Your task to perform on an android device: check out phone information Image 0: 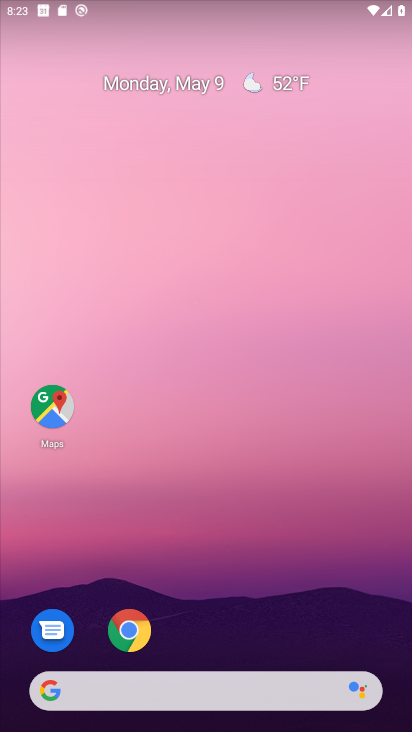
Step 0: drag from (228, 659) to (277, 110)
Your task to perform on an android device: check out phone information Image 1: 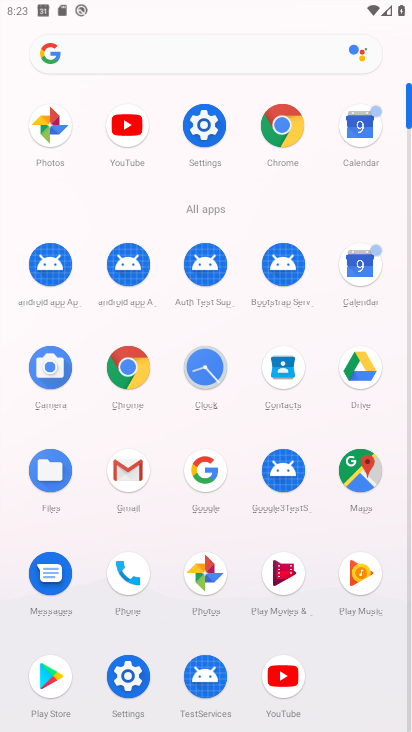
Step 1: click (199, 141)
Your task to perform on an android device: check out phone information Image 2: 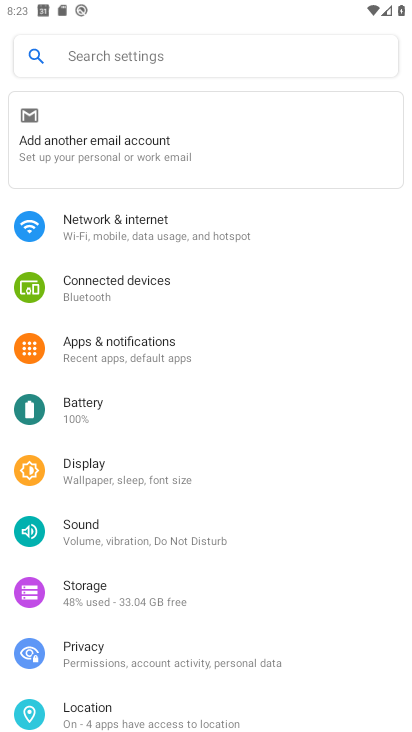
Step 2: drag from (116, 631) to (186, 227)
Your task to perform on an android device: check out phone information Image 3: 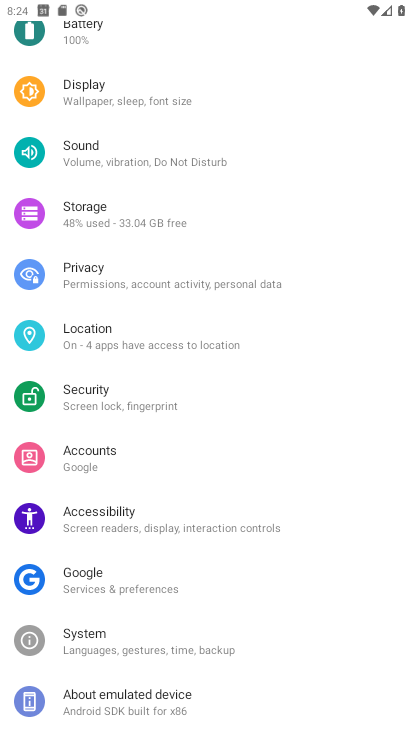
Step 3: click (105, 706)
Your task to perform on an android device: check out phone information Image 4: 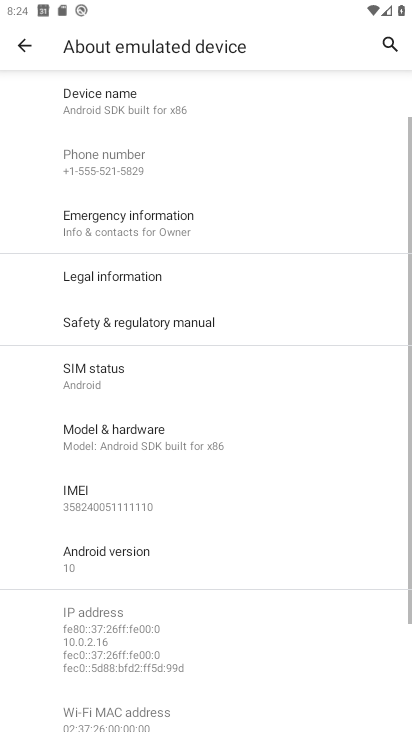
Step 4: task complete